Your task to perform on an android device: Search for electric lawnmowers on Home Depot Image 0: 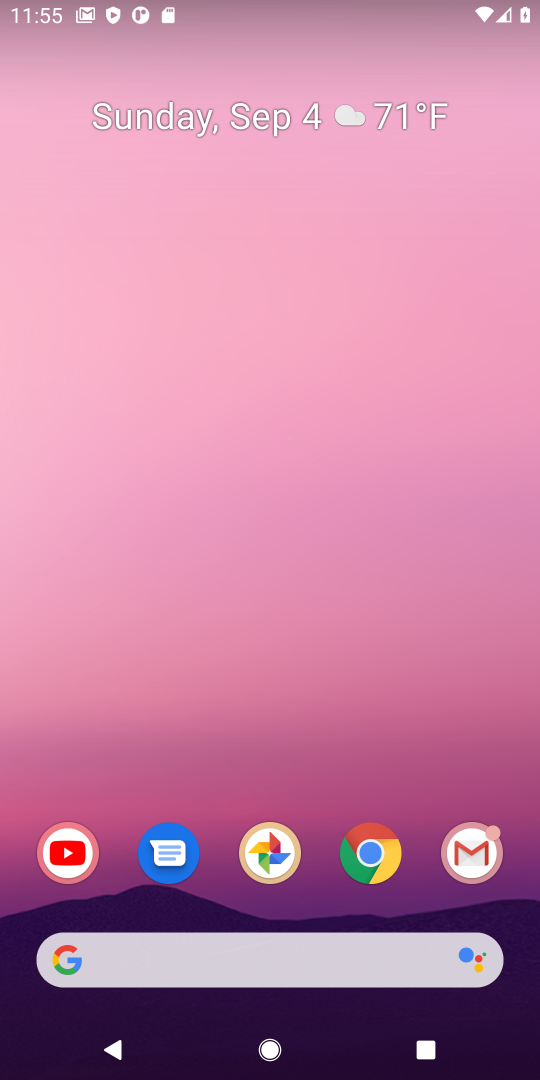
Step 0: click (370, 847)
Your task to perform on an android device: Search for electric lawnmowers on Home Depot Image 1: 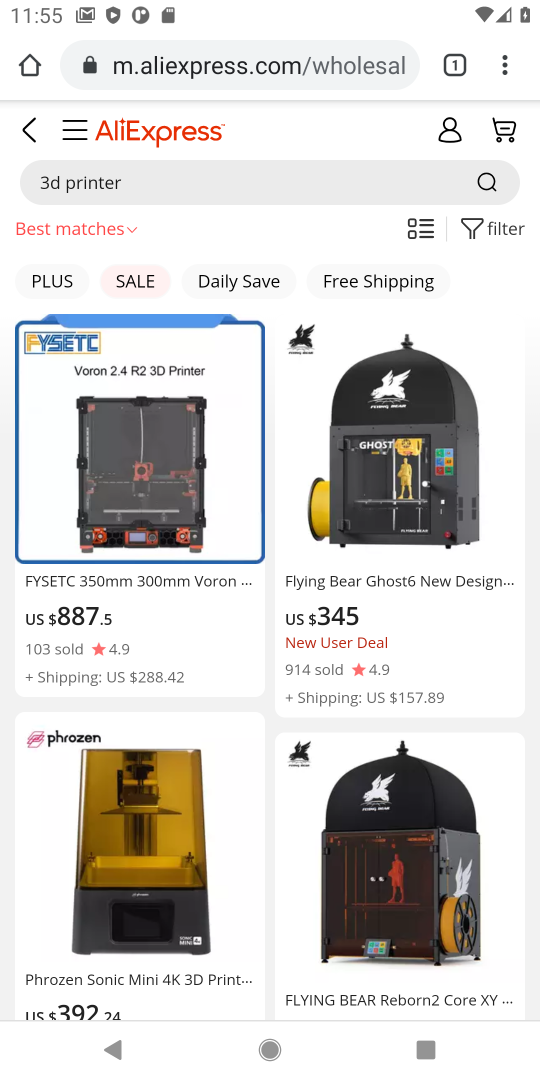
Step 1: click (306, 69)
Your task to perform on an android device: Search for electric lawnmowers on Home Depot Image 2: 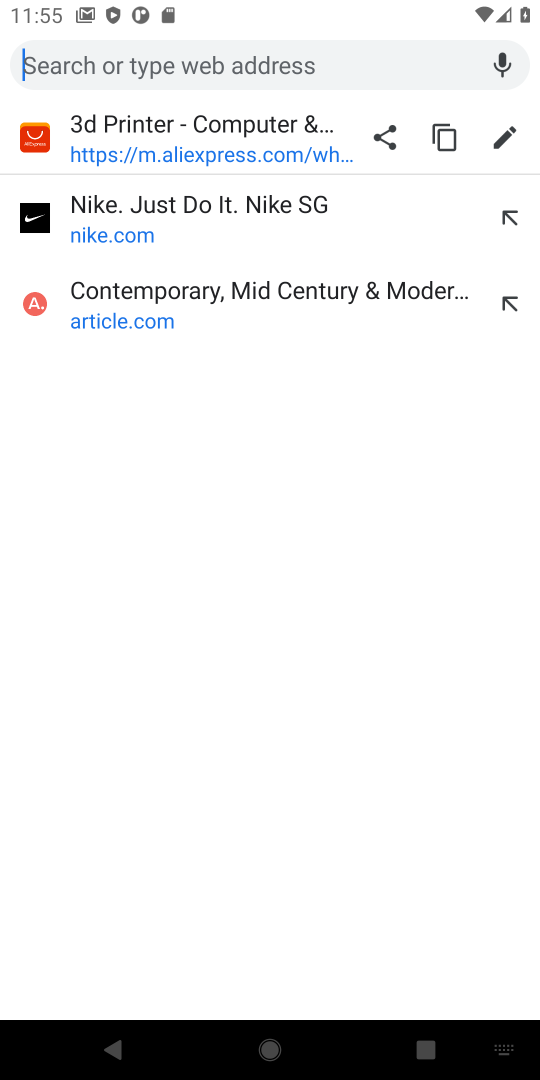
Step 2: type "Home Depot"
Your task to perform on an android device: Search for electric lawnmowers on Home Depot Image 3: 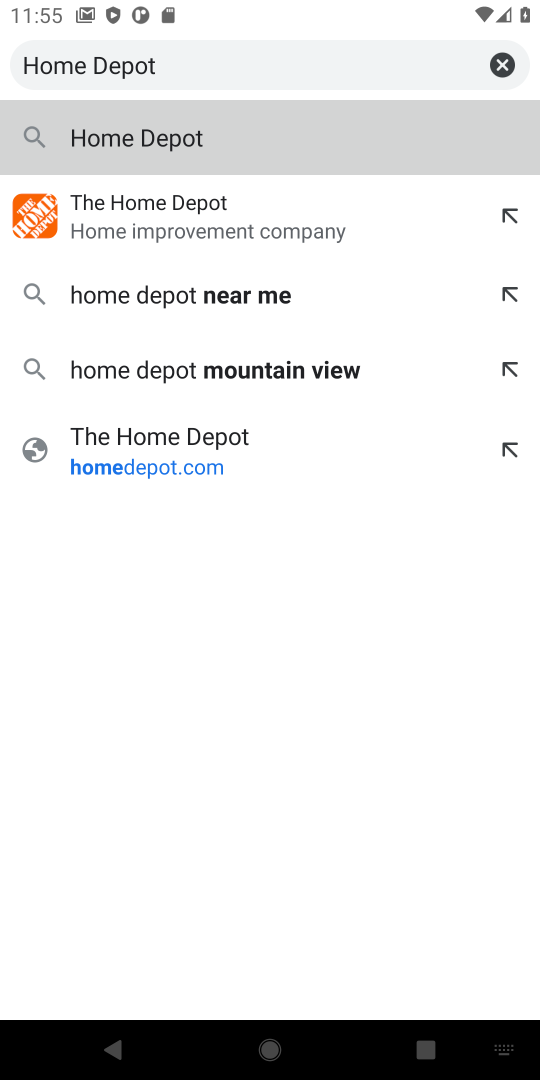
Step 3: press enter
Your task to perform on an android device: Search for electric lawnmowers on Home Depot Image 4: 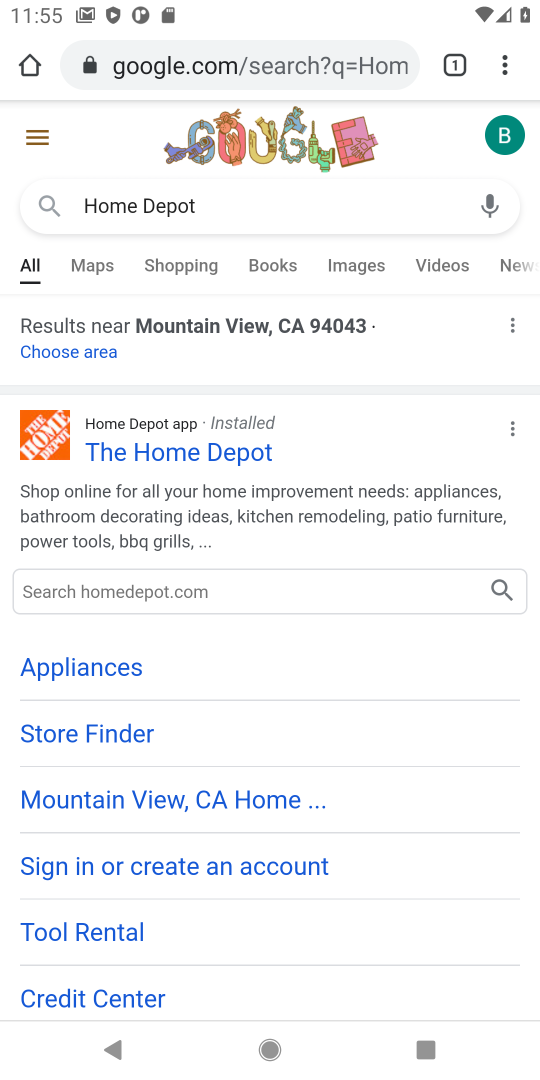
Step 4: task complete